Your task to perform on an android device: Open Google Chrome Image 0: 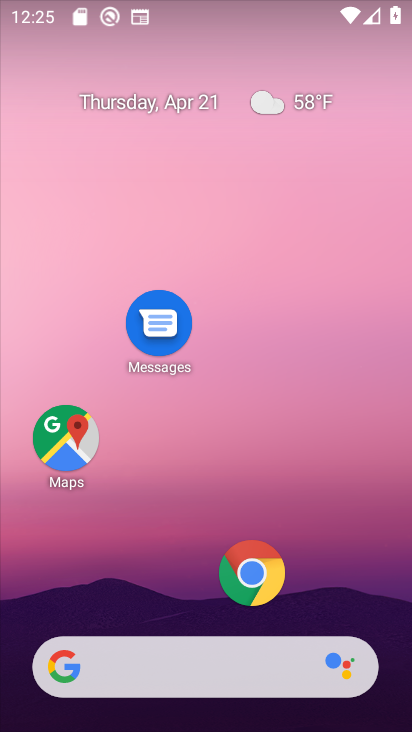
Step 0: click (257, 576)
Your task to perform on an android device: Open Google Chrome Image 1: 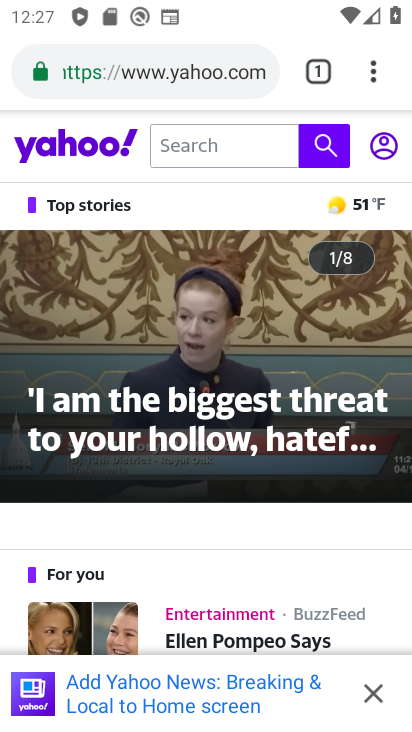
Step 1: task complete